Your task to perform on an android device: Go to ESPN.com Image 0: 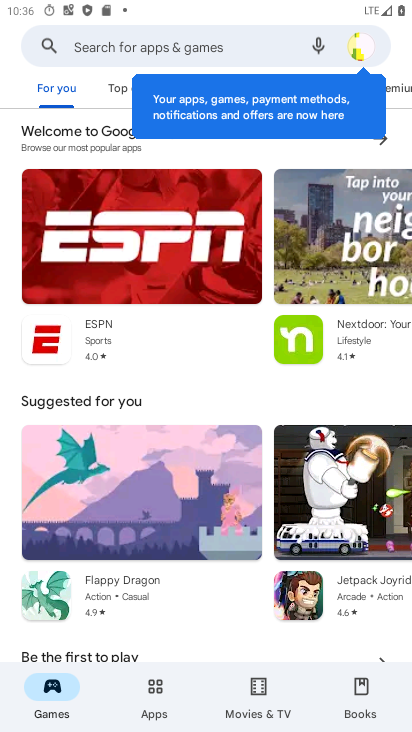
Step 0: press home button
Your task to perform on an android device: Go to ESPN.com Image 1: 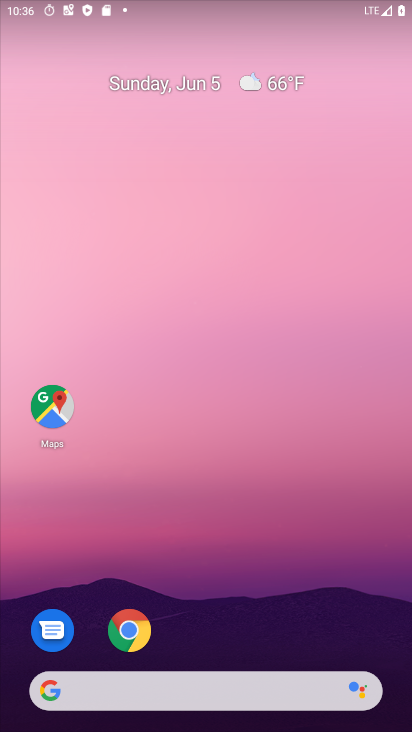
Step 1: click (131, 626)
Your task to perform on an android device: Go to ESPN.com Image 2: 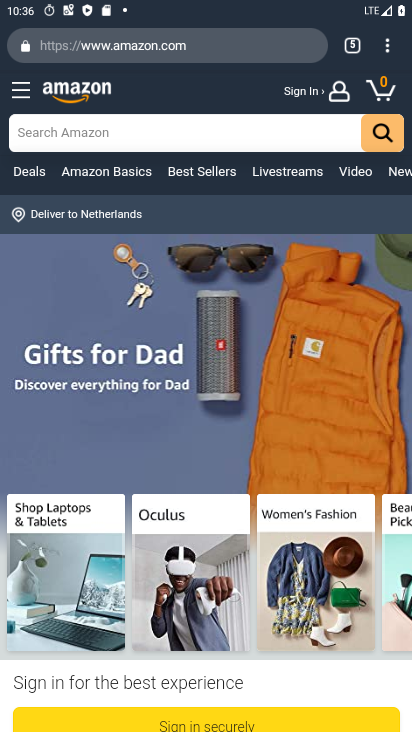
Step 2: click (388, 51)
Your task to perform on an android device: Go to ESPN.com Image 3: 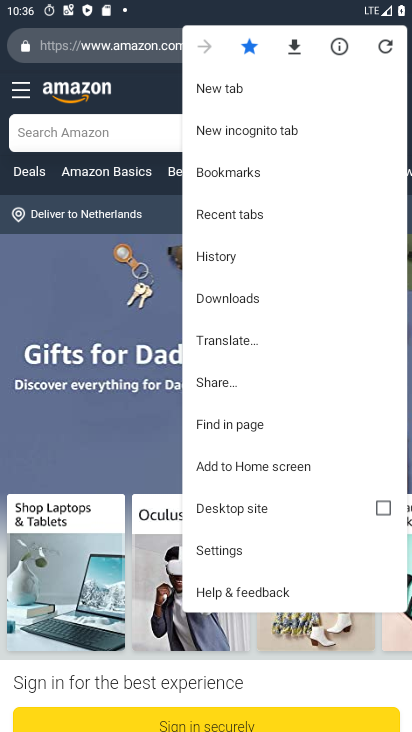
Step 3: click (237, 85)
Your task to perform on an android device: Go to ESPN.com Image 4: 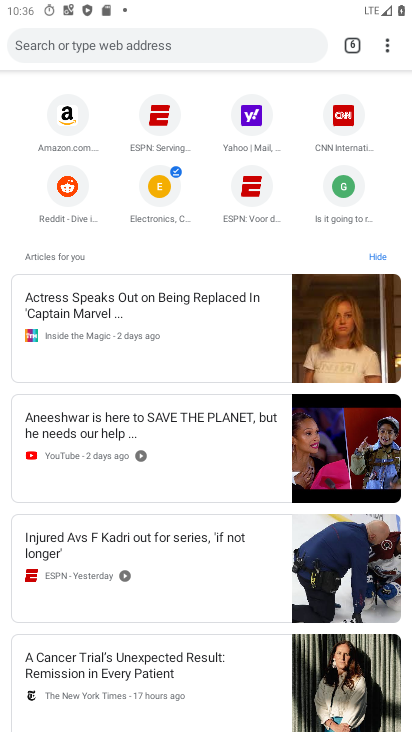
Step 4: click (156, 112)
Your task to perform on an android device: Go to ESPN.com Image 5: 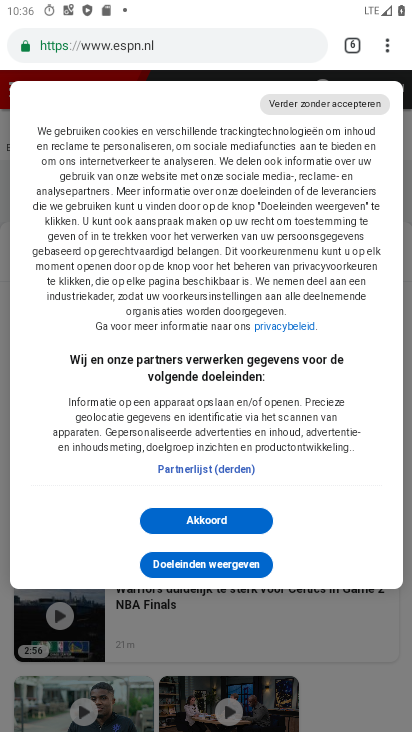
Step 5: click (188, 520)
Your task to perform on an android device: Go to ESPN.com Image 6: 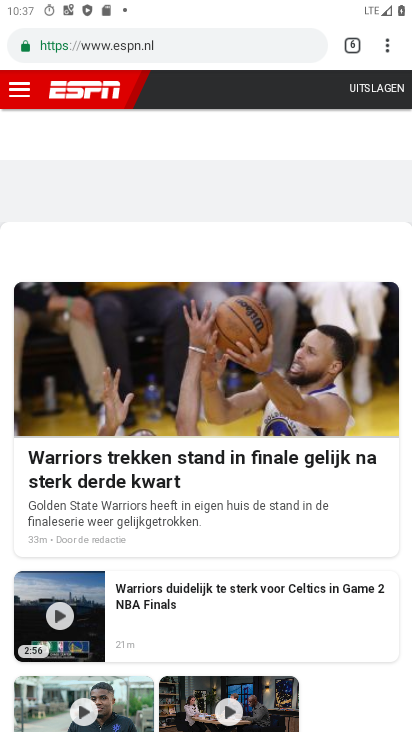
Step 6: task complete